Your task to perform on an android device: Open calendar and show me the third week of next month Image 0: 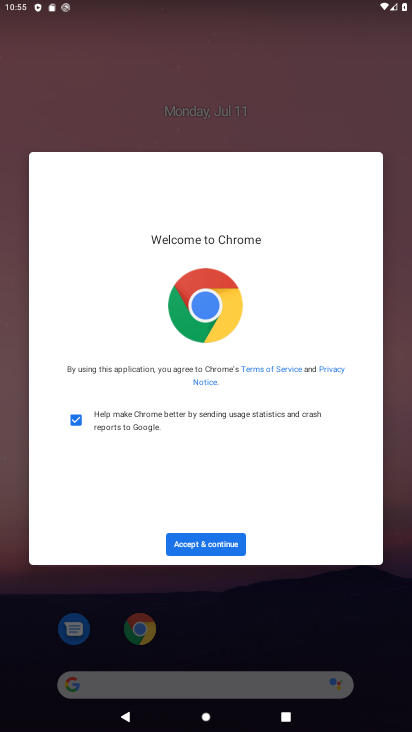
Step 0: press back button
Your task to perform on an android device: Open calendar and show me the third week of next month Image 1: 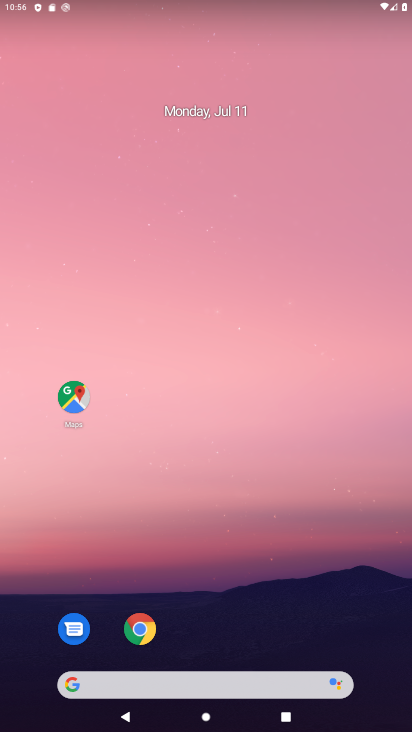
Step 1: drag from (250, 546) to (197, 43)
Your task to perform on an android device: Open calendar and show me the third week of next month Image 2: 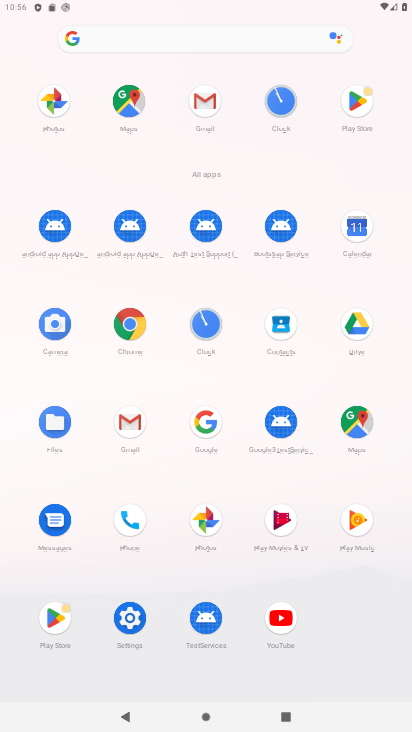
Step 2: click (344, 224)
Your task to perform on an android device: Open calendar and show me the third week of next month Image 3: 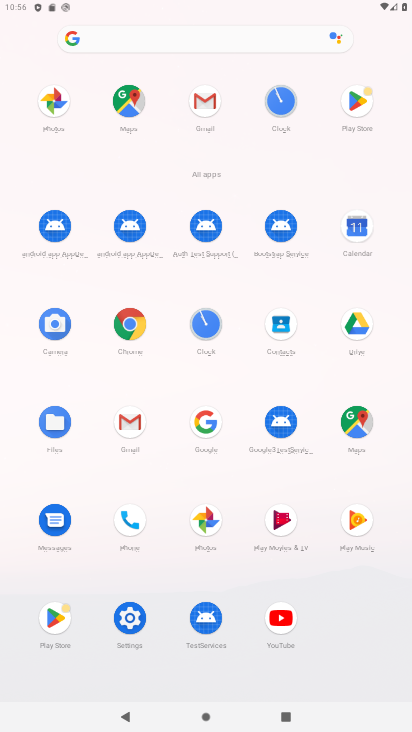
Step 3: click (346, 226)
Your task to perform on an android device: Open calendar and show me the third week of next month Image 4: 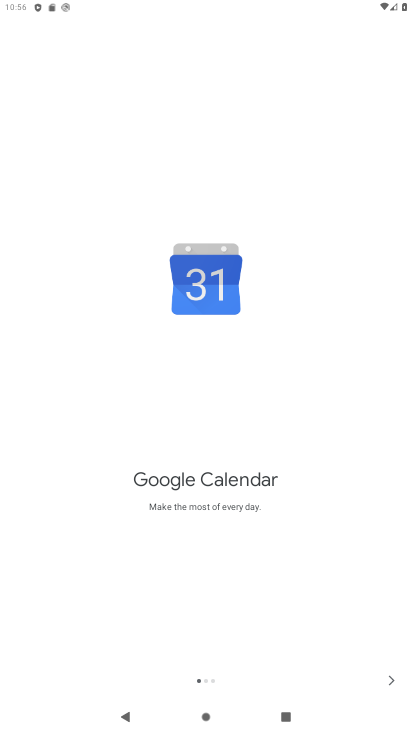
Step 4: click (402, 670)
Your task to perform on an android device: Open calendar and show me the third week of next month Image 5: 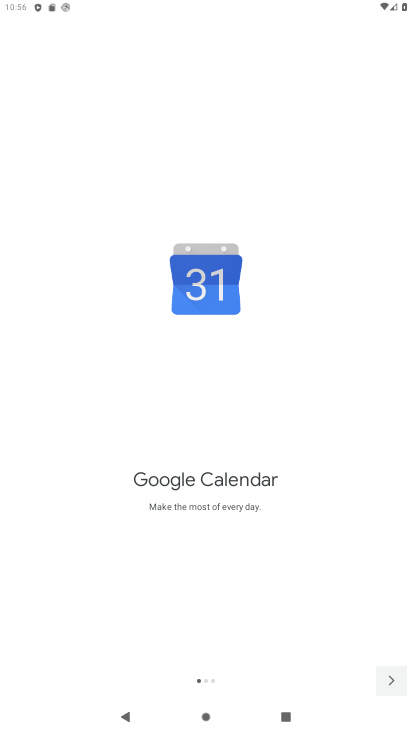
Step 5: click (398, 686)
Your task to perform on an android device: Open calendar and show me the third week of next month Image 6: 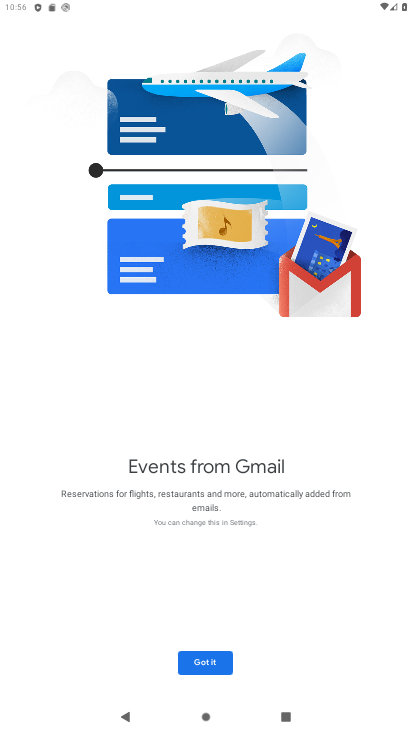
Step 6: click (213, 671)
Your task to perform on an android device: Open calendar and show me the third week of next month Image 7: 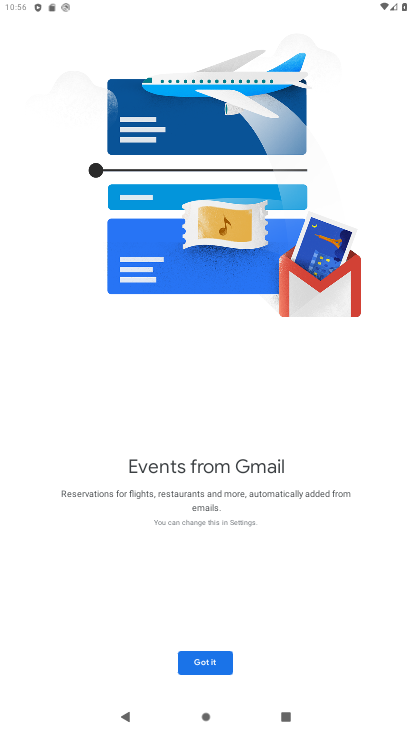
Step 7: click (214, 672)
Your task to perform on an android device: Open calendar and show me the third week of next month Image 8: 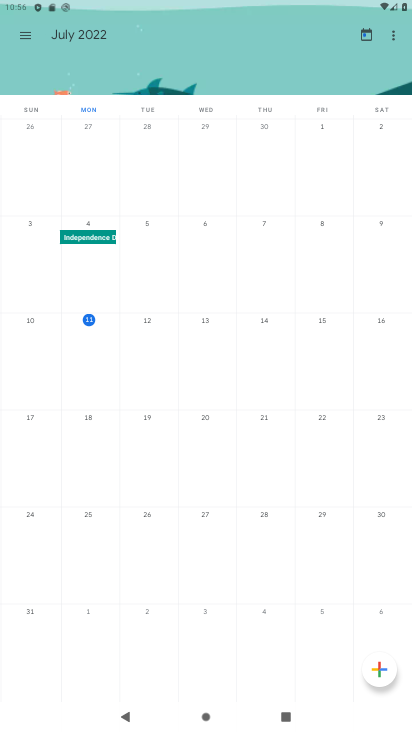
Step 8: drag from (42, 331) to (45, 194)
Your task to perform on an android device: Open calendar and show me the third week of next month Image 9: 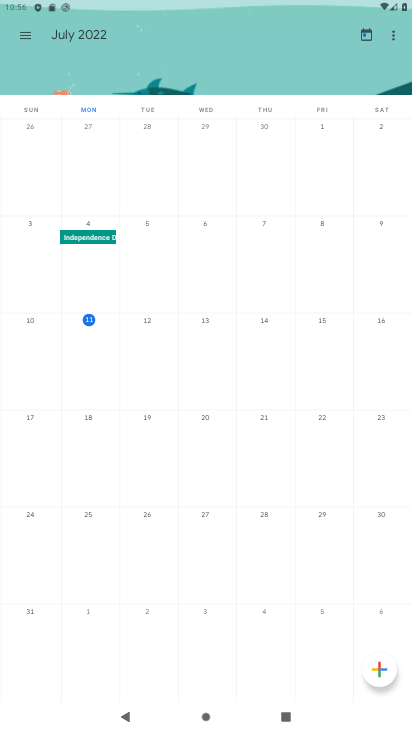
Step 9: drag from (411, 322) to (34, 211)
Your task to perform on an android device: Open calendar and show me the third week of next month Image 10: 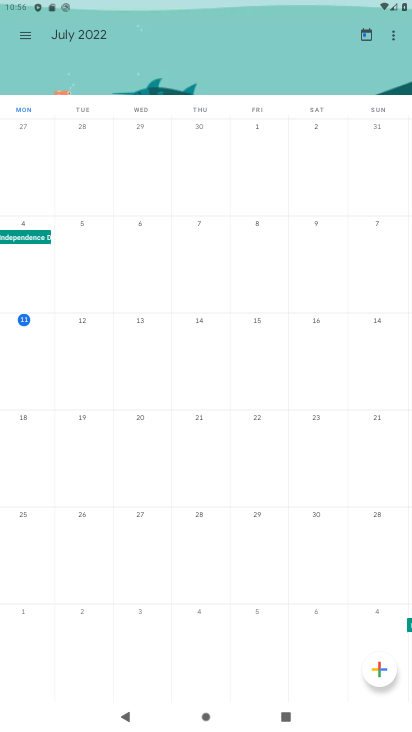
Step 10: drag from (301, 207) to (2, 5)
Your task to perform on an android device: Open calendar and show me the third week of next month Image 11: 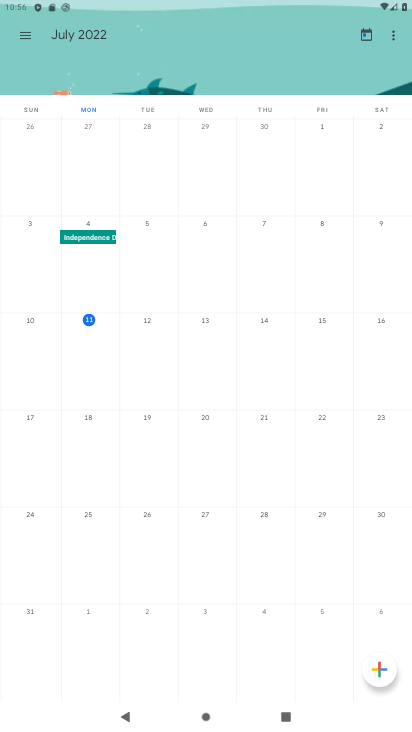
Step 11: drag from (391, 231) to (8, 254)
Your task to perform on an android device: Open calendar and show me the third week of next month Image 12: 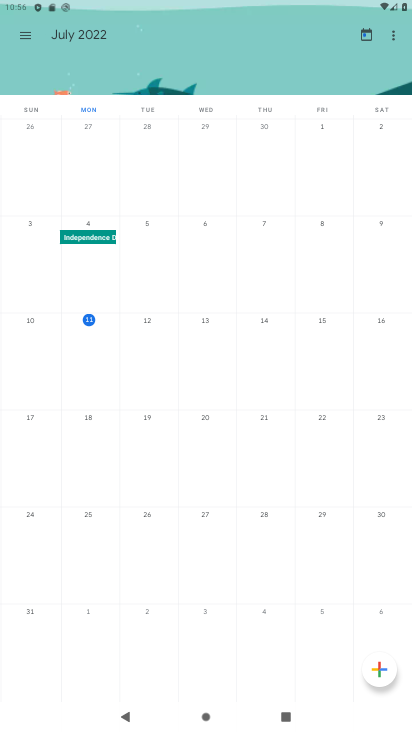
Step 12: drag from (255, 199) to (6, 263)
Your task to perform on an android device: Open calendar and show me the third week of next month Image 13: 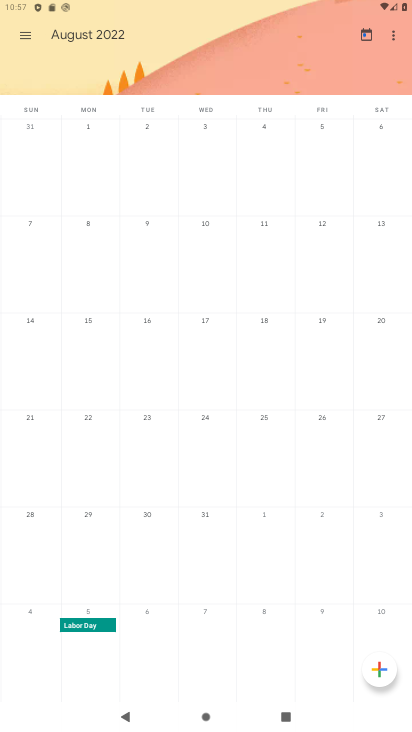
Step 13: click (376, 413)
Your task to perform on an android device: Open calendar and show me the third week of next month Image 14: 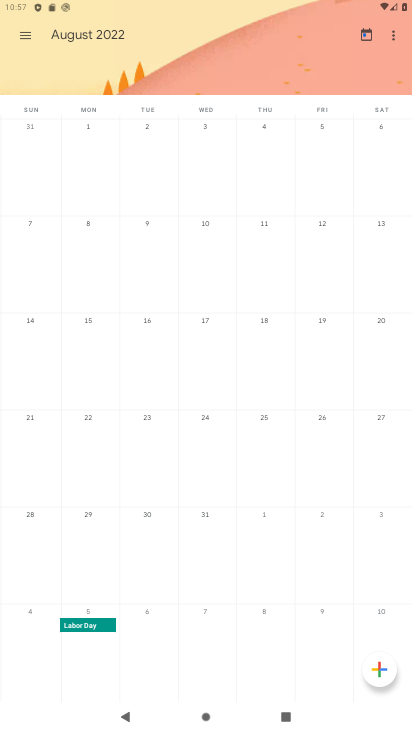
Step 14: drag from (131, 402) to (395, 445)
Your task to perform on an android device: Open calendar and show me the third week of next month Image 15: 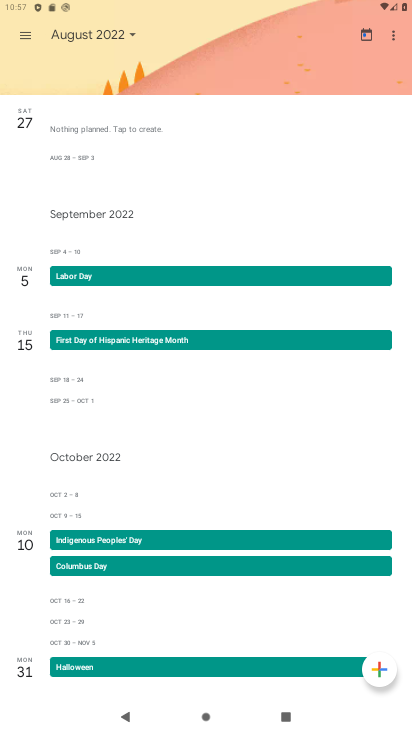
Step 15: drag from (53, 223) to (407, 318)
Your task to perform on an android device: Open calendar and show me the third week of next month Image 16: 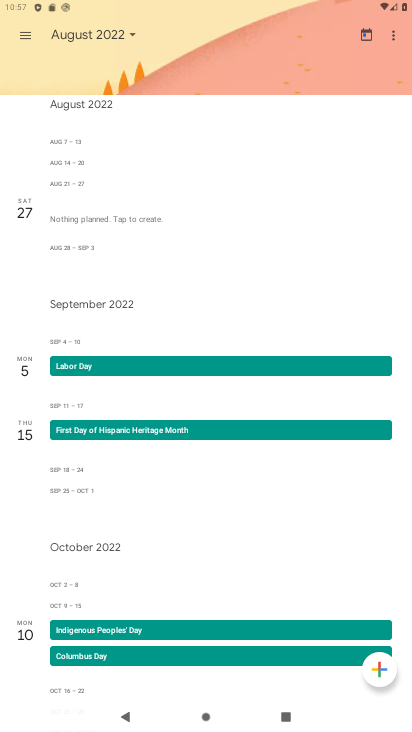
Step 16: drag from (65, 221) to (367, 164)
Your task to perform on an android device: Open calendar and show me the third week of next month Image 17: 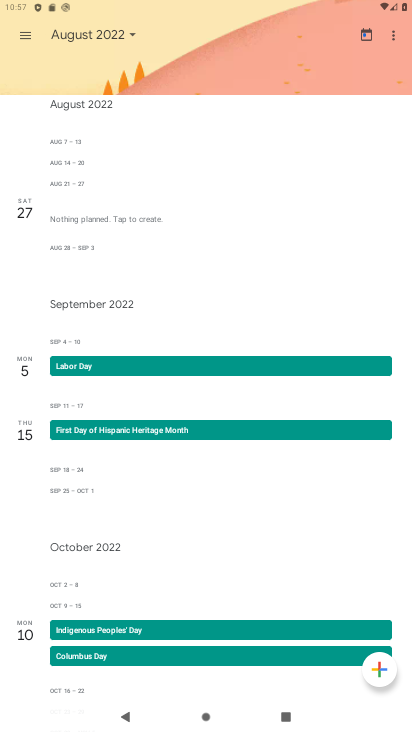
Step 17: click (132, 31)
Your task to perform on an android device: Open calendar and show me the third week of next month Image 18: 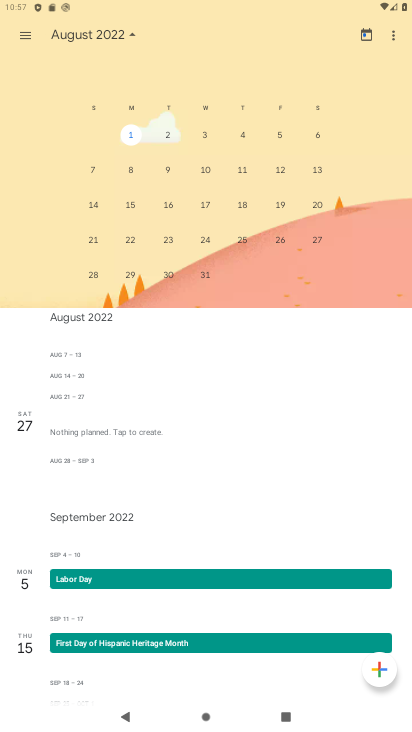
Step 18: drag from (103, 167) to (394, 218)
Your task to perform on an android device: Open calendar and show me the third week of next month Image 19: 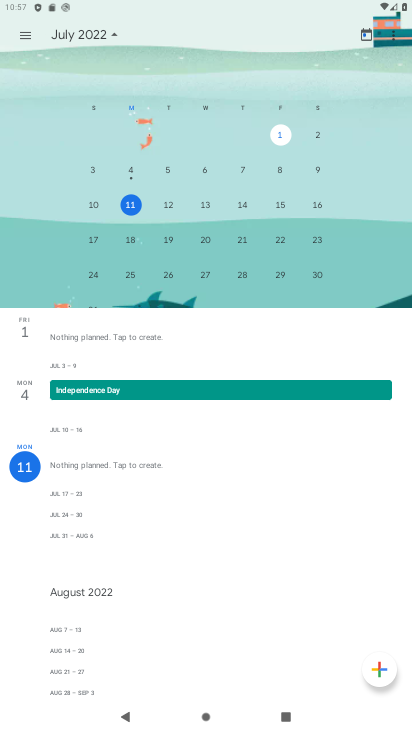
Step 19: click (383, 178)
Your task to perform on an android device: Open calendar and show me the third week of next month Image 20: 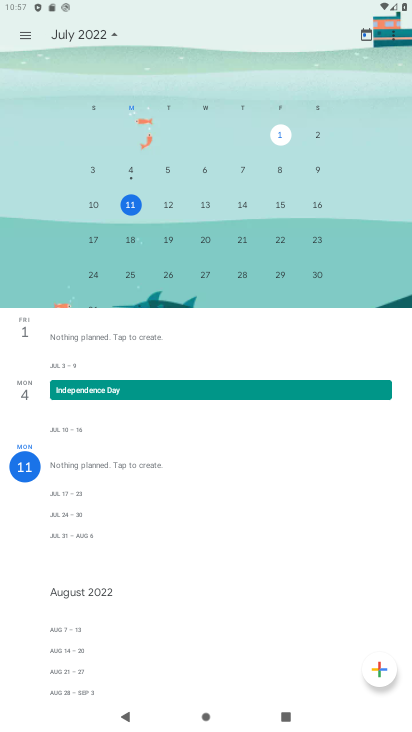
Step 20: drag from (320, 164) to (48, 277)
Your task to perform on an android device: Open calendar and show me the third week of next month Image 21: 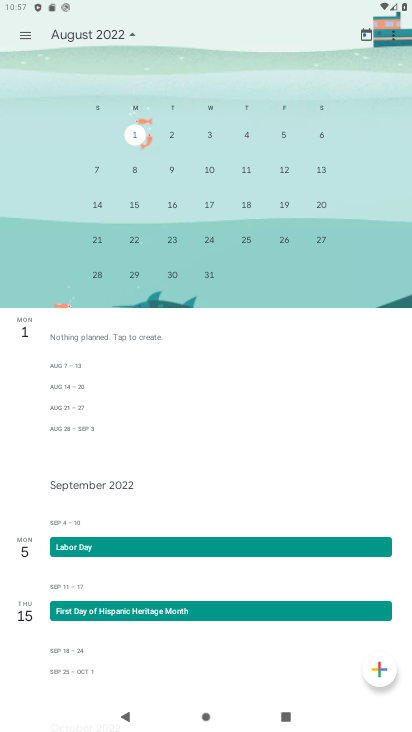
Step 21: drag from (222, 184) to (46, 247)
Your task to perform on an android device: Open calendar and show me the third week of next month Image 22: 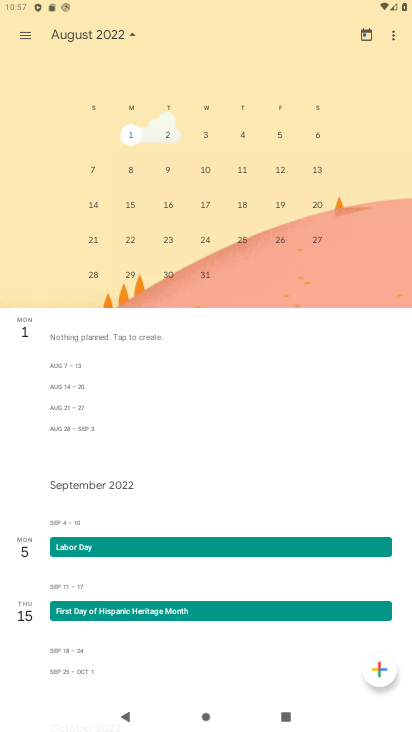
Step 22: click (173, 206)
Your task to perform on an android device: Open calendar and show me the third week of next month Image 23: 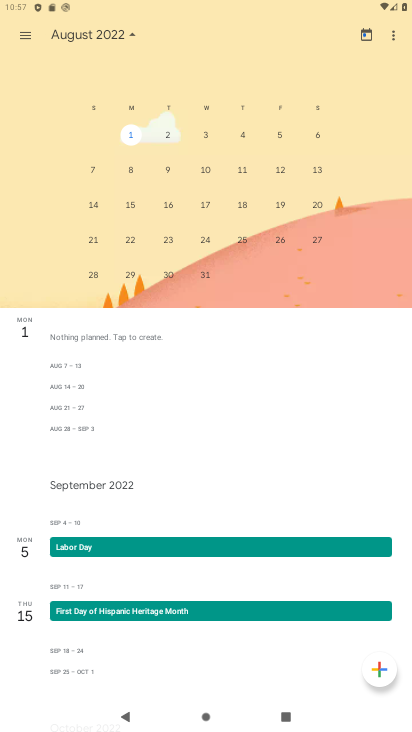
Step 23: click (171, 207)
Your task to perform on an android device: Open calendar and show me the third week of next month Image 24: 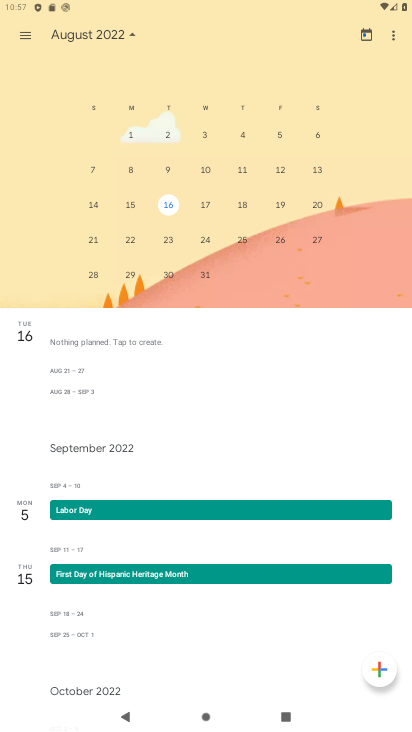
Step 24: click (174, 210)
Your task to perform on an android device: Open calendar and show me the third week of next month Image 25: 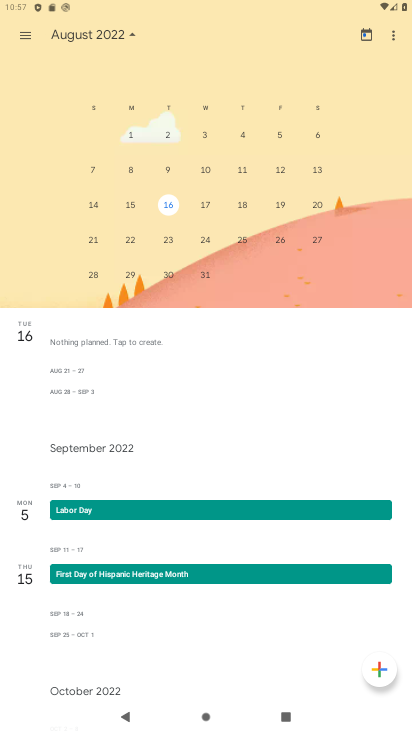
Step 25: click (175, 210)
Your task to perform on an android device: Open calendar and show me the third week of next month Image 26: 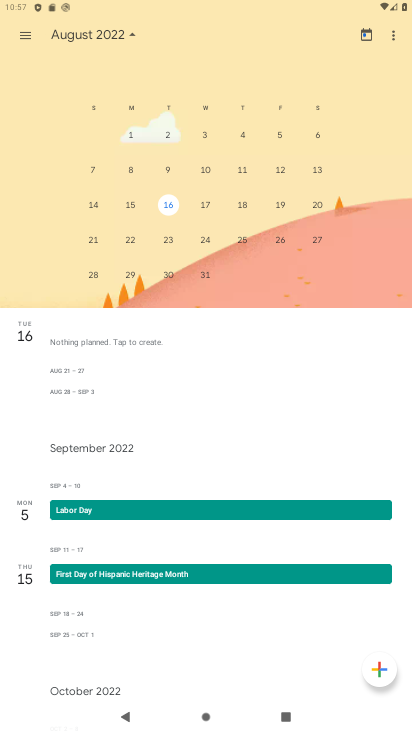
Step 26: click (175, 208)
Your task to perform on an android device: Open calendar and show me the third week of next month Image 27: 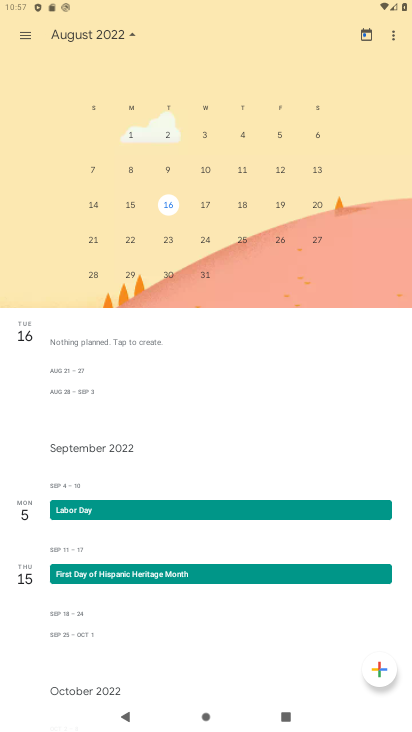
Step 27: click (175, 208)
Your task to perform on an android device: Open calendar and show me the third week of next month Image 28: 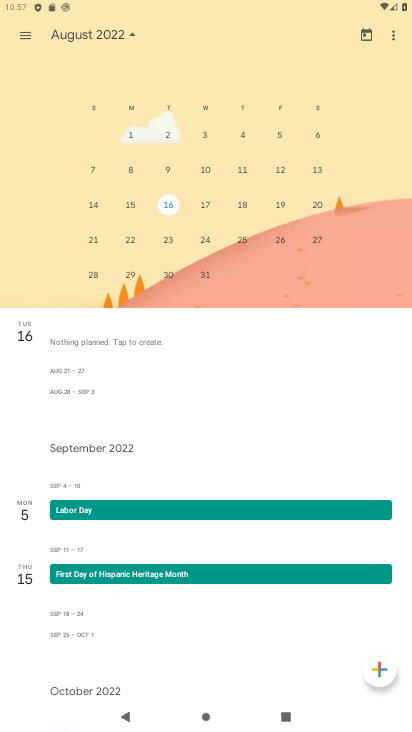
Step 28: click (176, 207)
Your task to perform on an android device: Open calendar and show me the third week of next month Image 29: 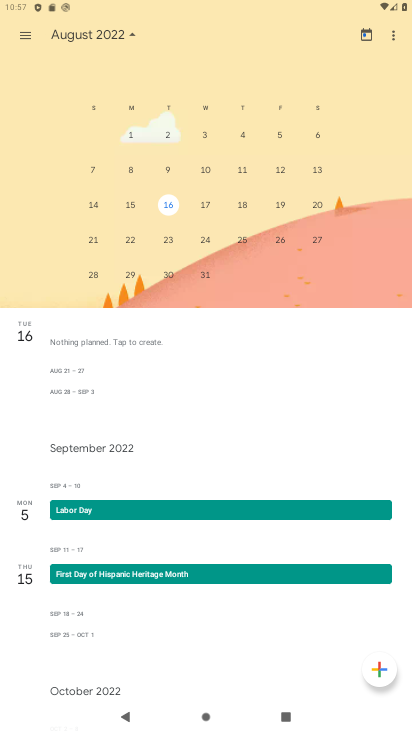
Step 29: task complete